Your task to perform on an android device: Open CNN.com Image 0: 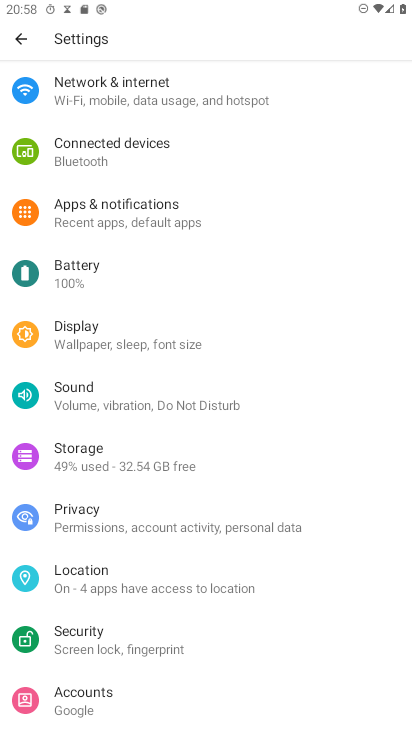
Step 0: press home button
Your task to perform on an android device: Open CNN.com Image 1: 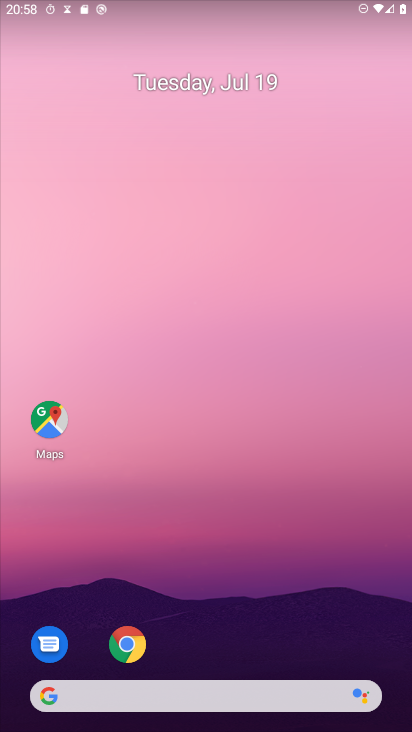
Step 1: click (95, 697)
Your task to perform on an android device: Open CNN.com Image 2: 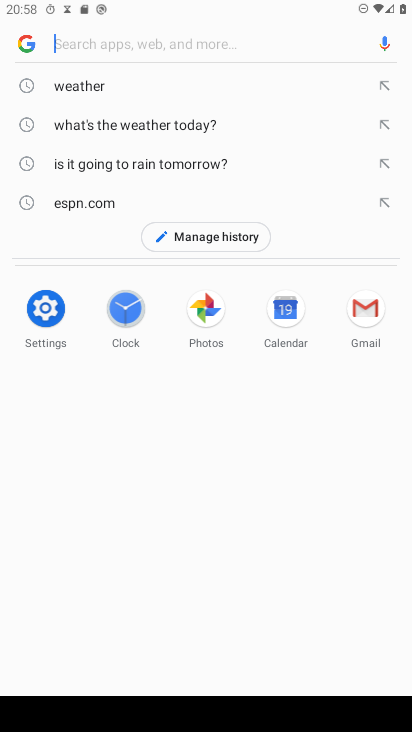
Step 2: type "CNN.com"
Your task to perform on an android device: Open CNN.com Image 3: 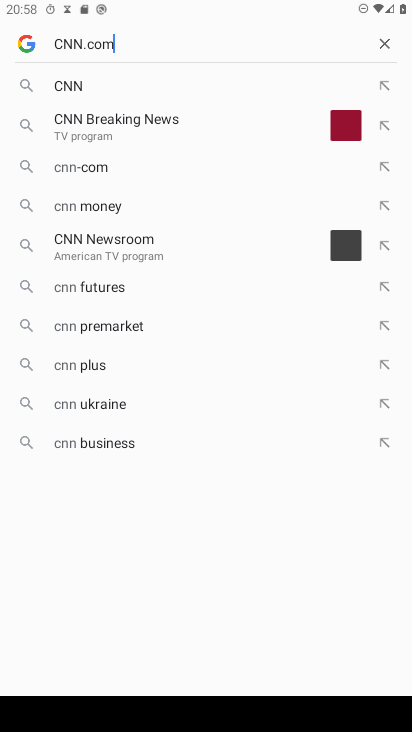
Step 3: type ""
Your task to perform on an android device: Open CNN.com Image 4: 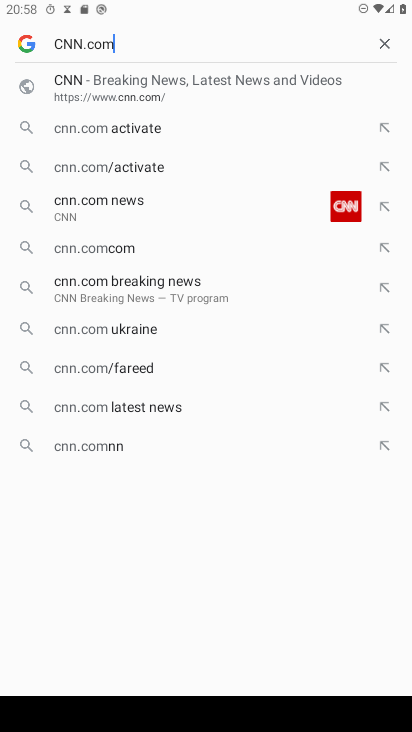
Step 4: click (80, 80)
Your task to perform on an android device: Open CNN.com Image 5: 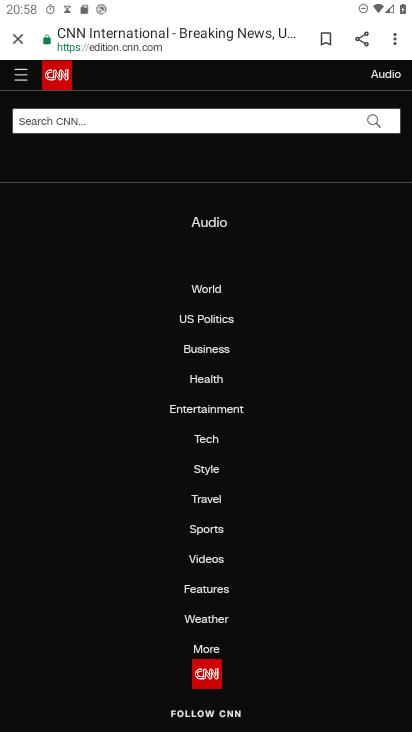
Step 5: task complete